Your task to perform on an android device: Clear the shopping cart on amazon. Add "macbook pro 13 inch" to the cart on amazon, then select checkout. Image 0: 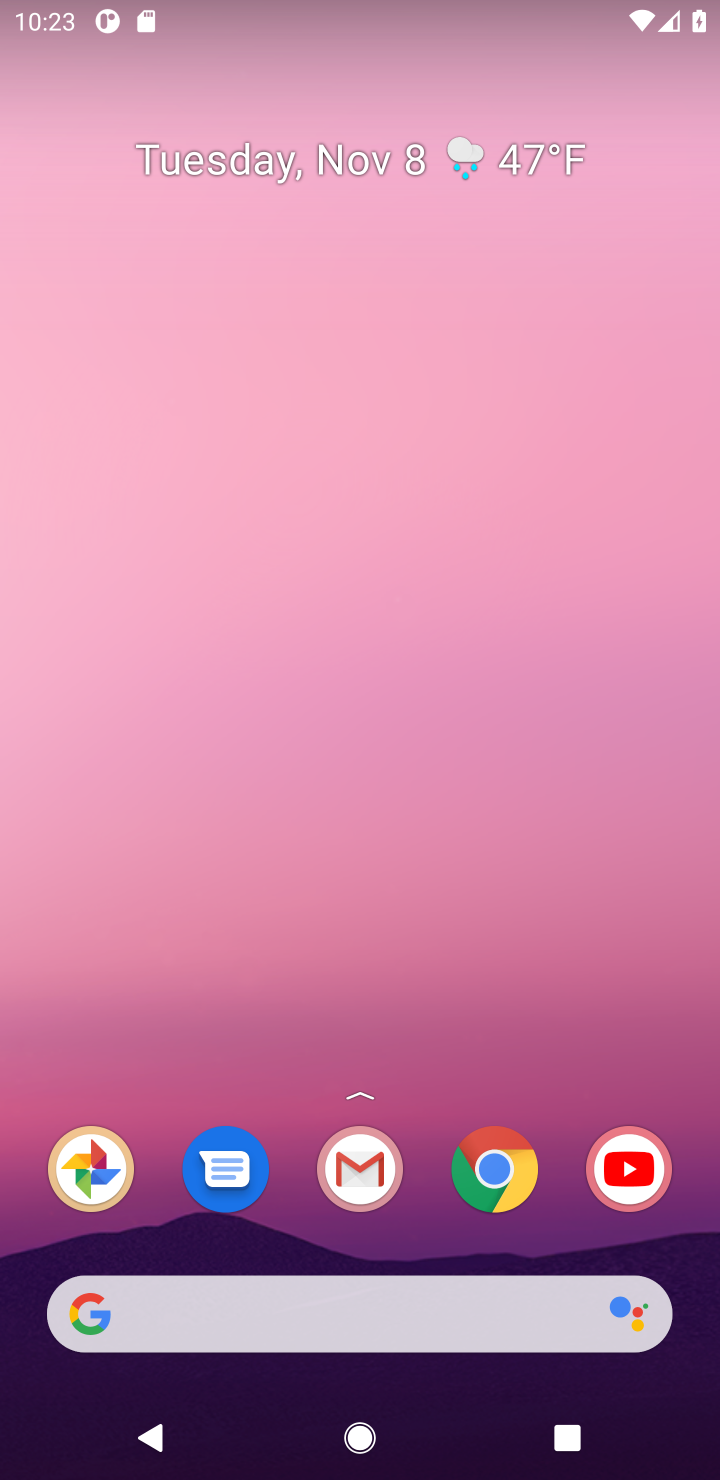
Step 0: click (523, 1178)
Your task to perform on an android device: Clear the shopping cart on amazon. Add "macbook pro 13 inch" to the cart on amazon, then select checkout. Image 1: 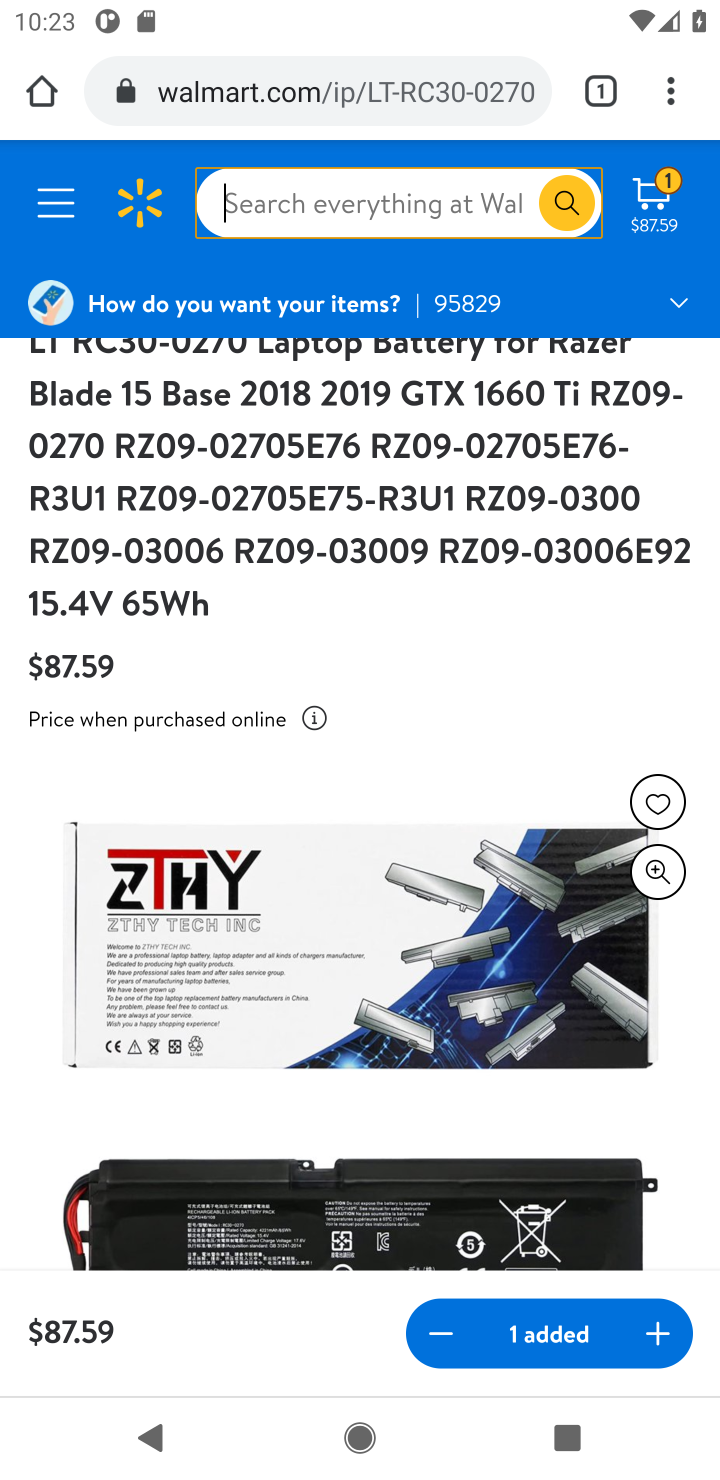
Step 1: click (528, 97)
Your task to perform on an android device: Clear the shopping cart on amazon. Add "macbook pro 13 inch" to the cart on amazon, then select checkout. Image 2: 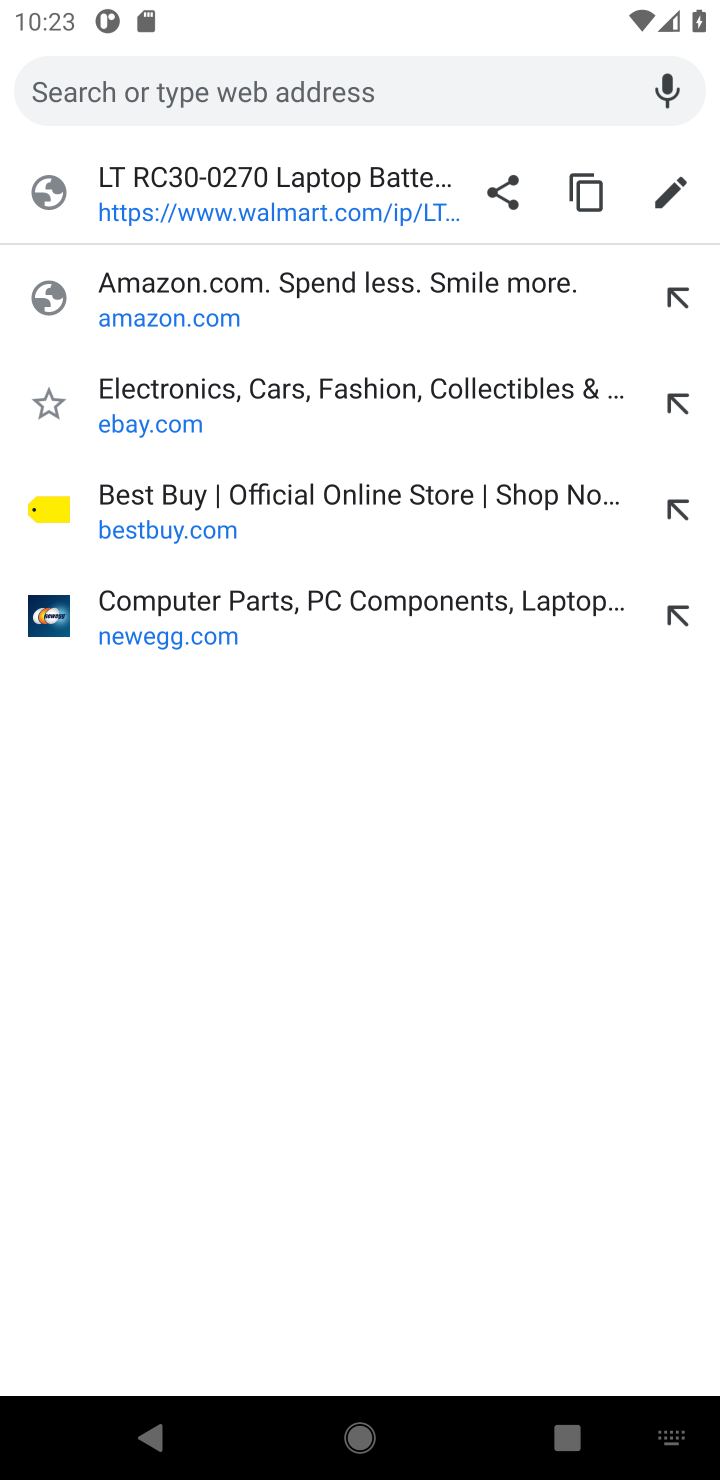
Step 2: press enter
Your task to perform on an android device: Clear the shopping cart on amazon. Add "macbook pro 13 inch" to the cart on amazon, then select checkout. Image 3: 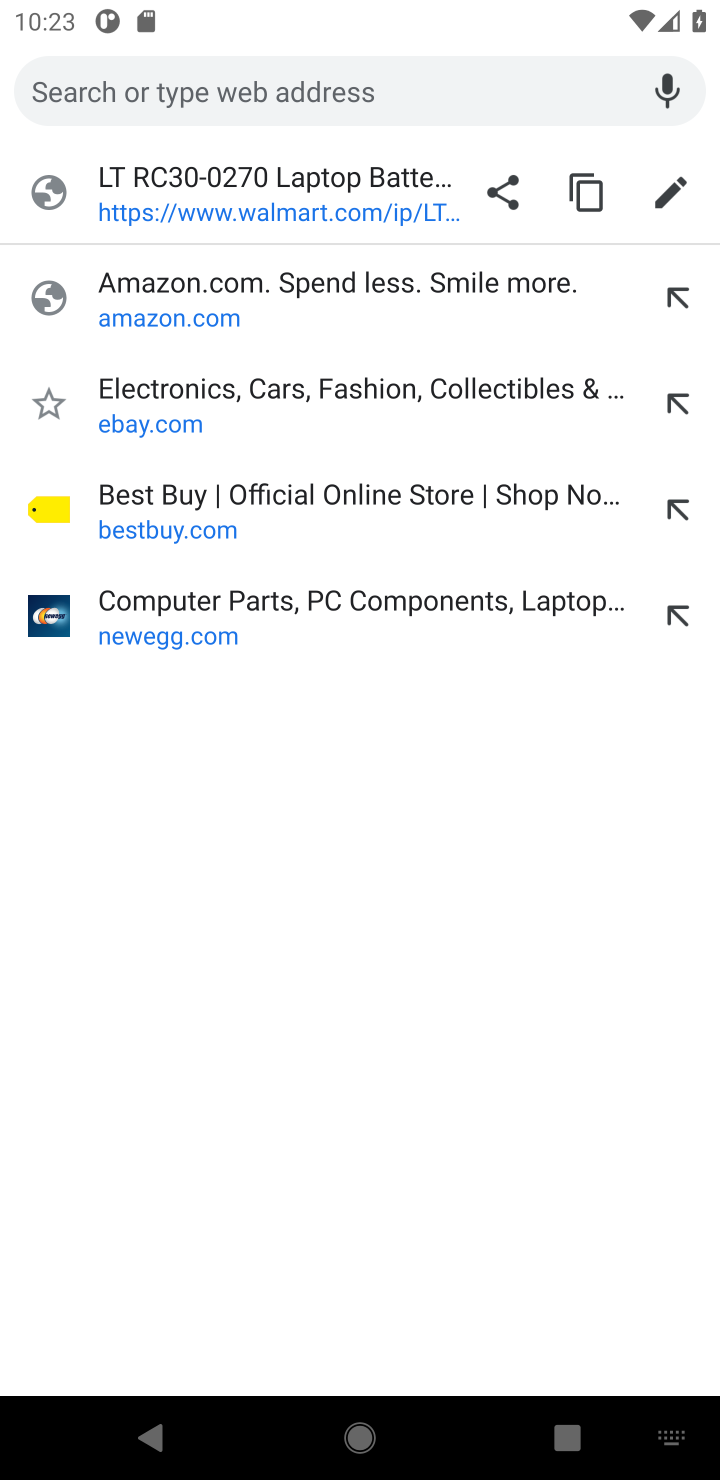
Step 3: type "amazon"
Your task to perform on an android device: Clear the shopping cart on amazon. Add "macbook pro 13 inch" to the cart on amazon, then select checkout. Image 4: 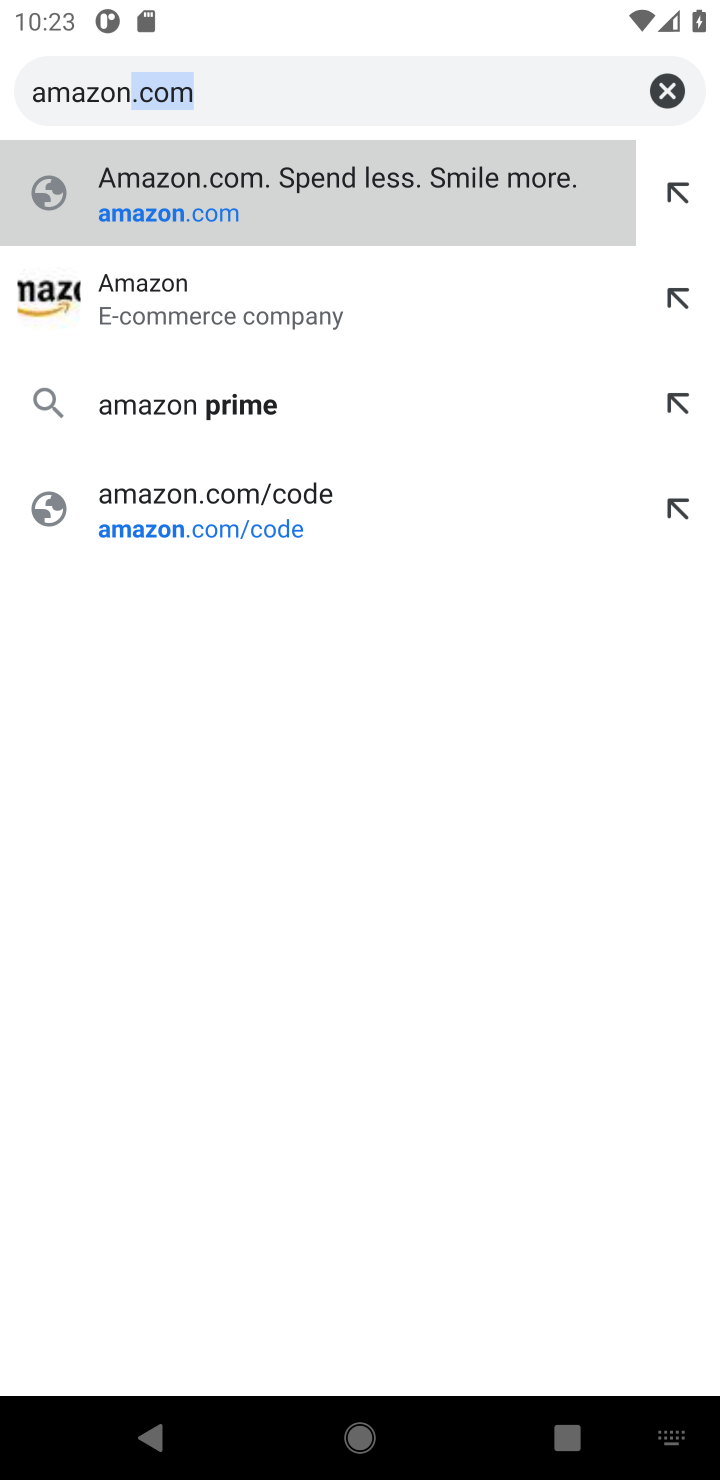
Step 4: click (539, 91)
Your task to perform on an android device: Clear the shopping cart on amazon. Add "macbook pro 13 inch" to the cart on amazon, then select checkout. Image 5: 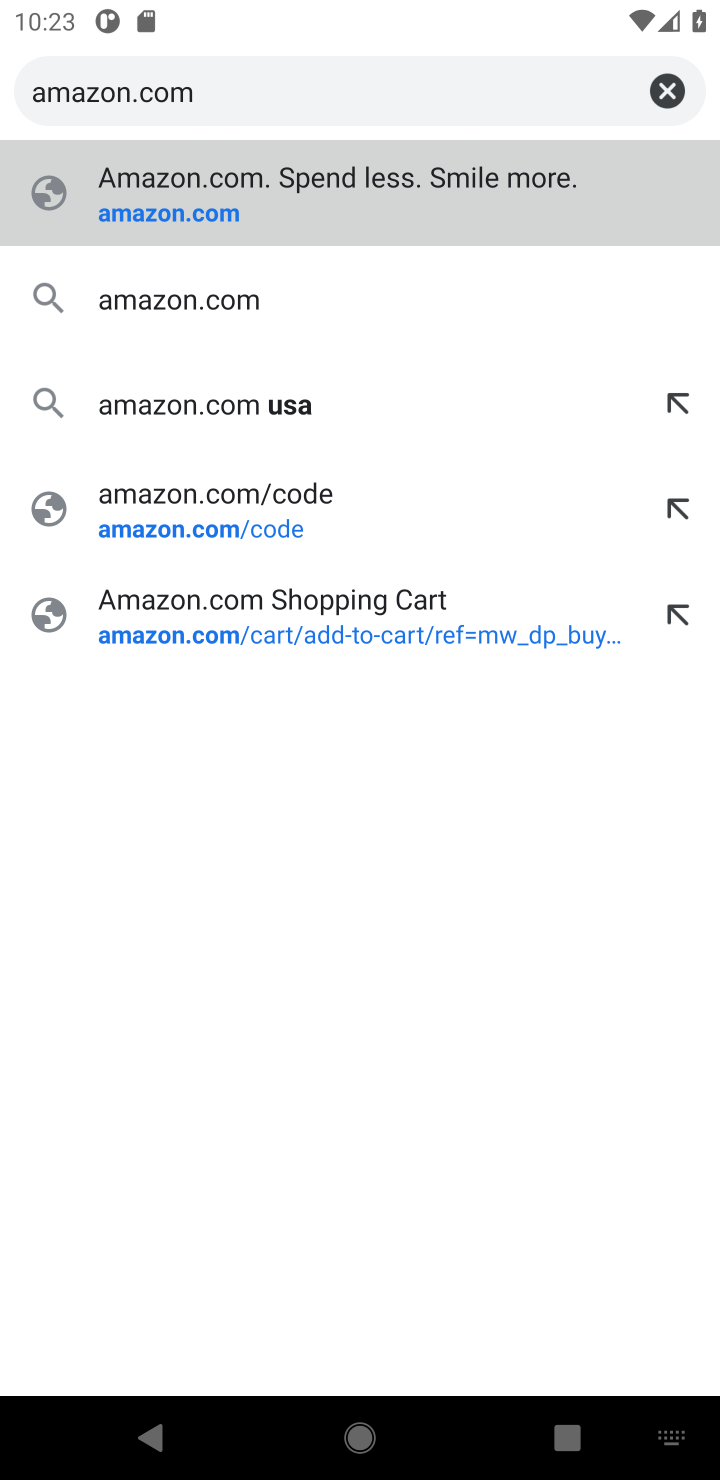
Step 5: click (219, 297)
Your task to perform on an android device: Clear the shopping cart on amazon. Add "macbook pro 13 inch" to the cart on amazon, then select checkout. Image 6: 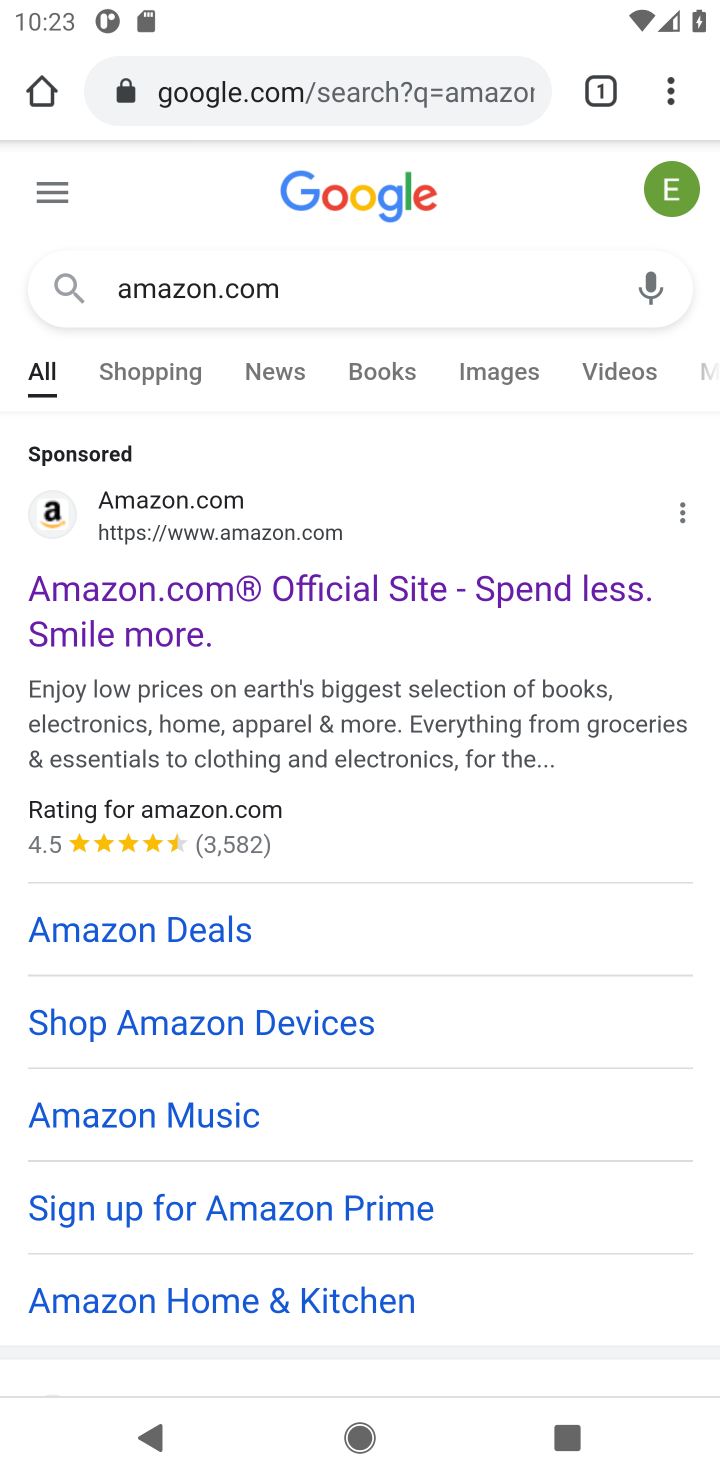
Step 6: click (298, 537)
Your task to perform on an android device: Clear the shopping cart on amazon. Add "macbook pro 13 inch" to the cart on amazon, then select checkout. Image 7: 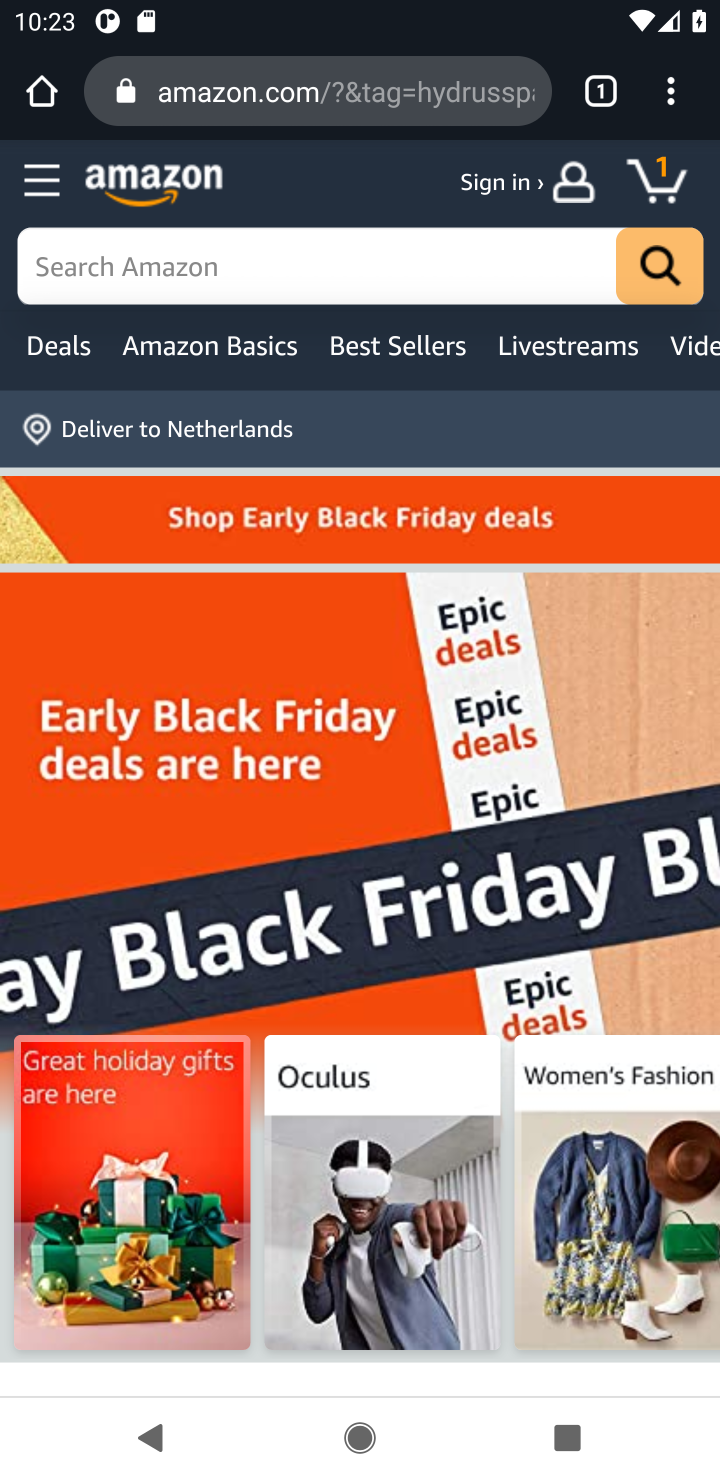
Step 7: click (662, 187)
Your task to perform on an android device: Clear the shopping cart on amazon. Add "macbook pro 13 inch" to the cart on amazon, then select checkout. Image 8: 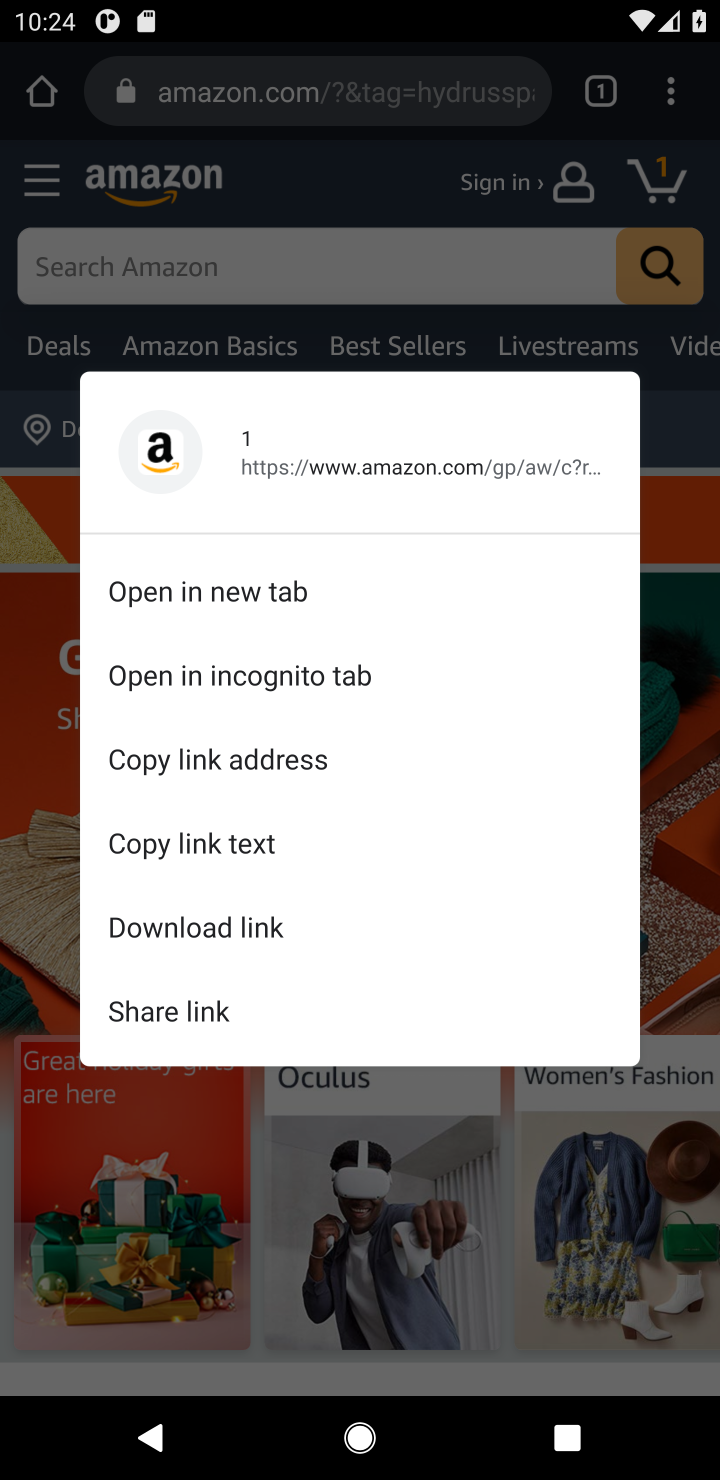
Step 8: click (662, 187)
Your task to perform on an android device: Clear the shopping cart on amazon. Add "macbook pro 13 inch" to the cart on amazon, then select checkout. Image 9: 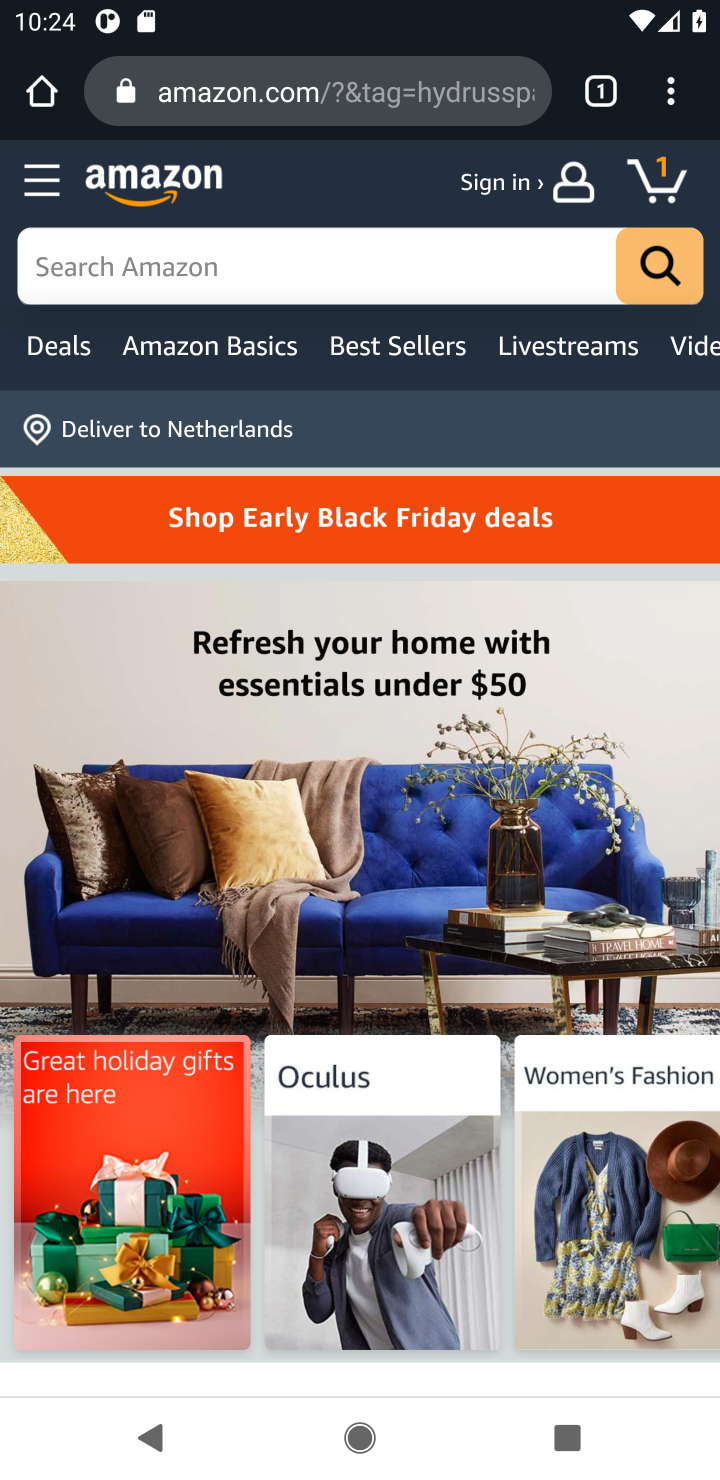
Step 9: click (662, 187)
Your task to perform on an android device: Clear the shopping cart on amazon. Add "macbook pro 13 inch" to the cart on amazon, then select checkout. Image 10: 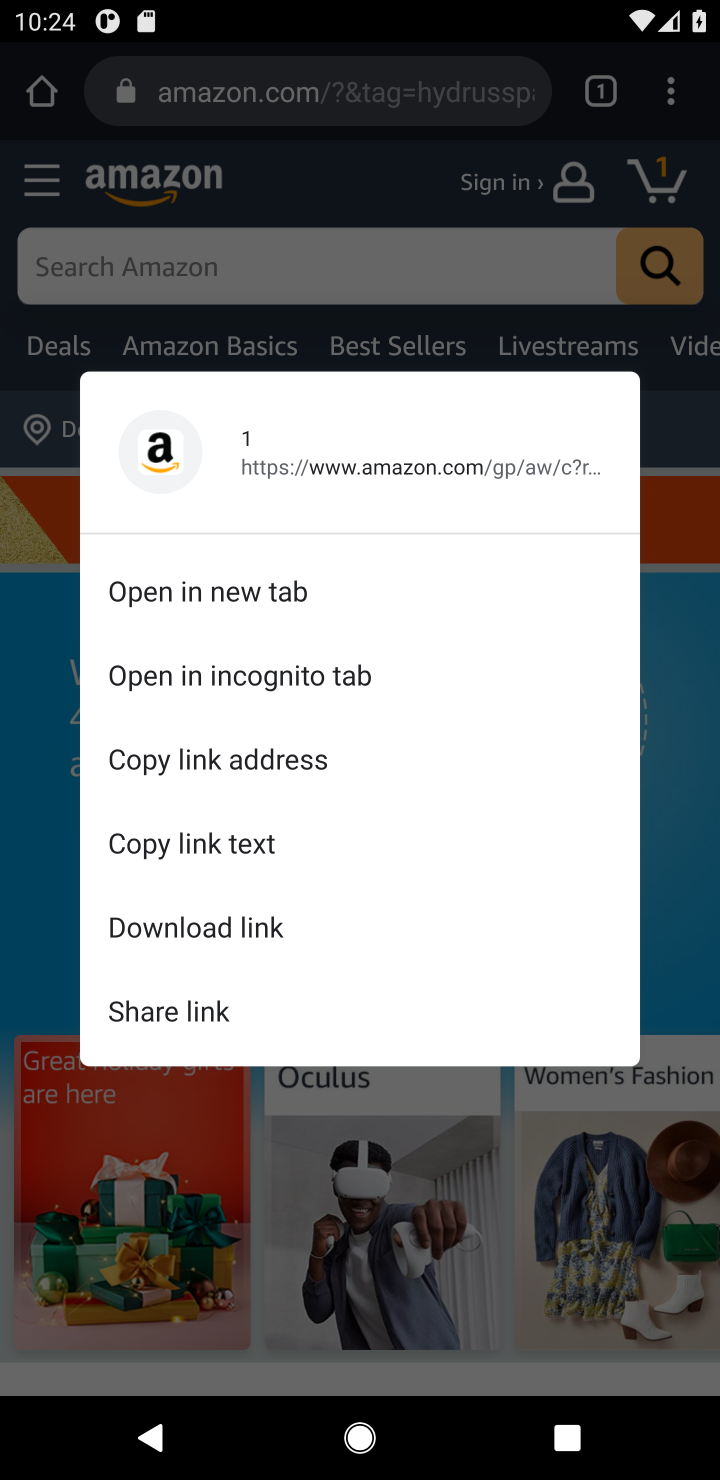
Step 10: click (662, 187)
Your task to perform on an android device: Clear the shopping cart on amazon. Add "macbook pro 13 inch" to the cart on amazon, then select checkout. Image 11: 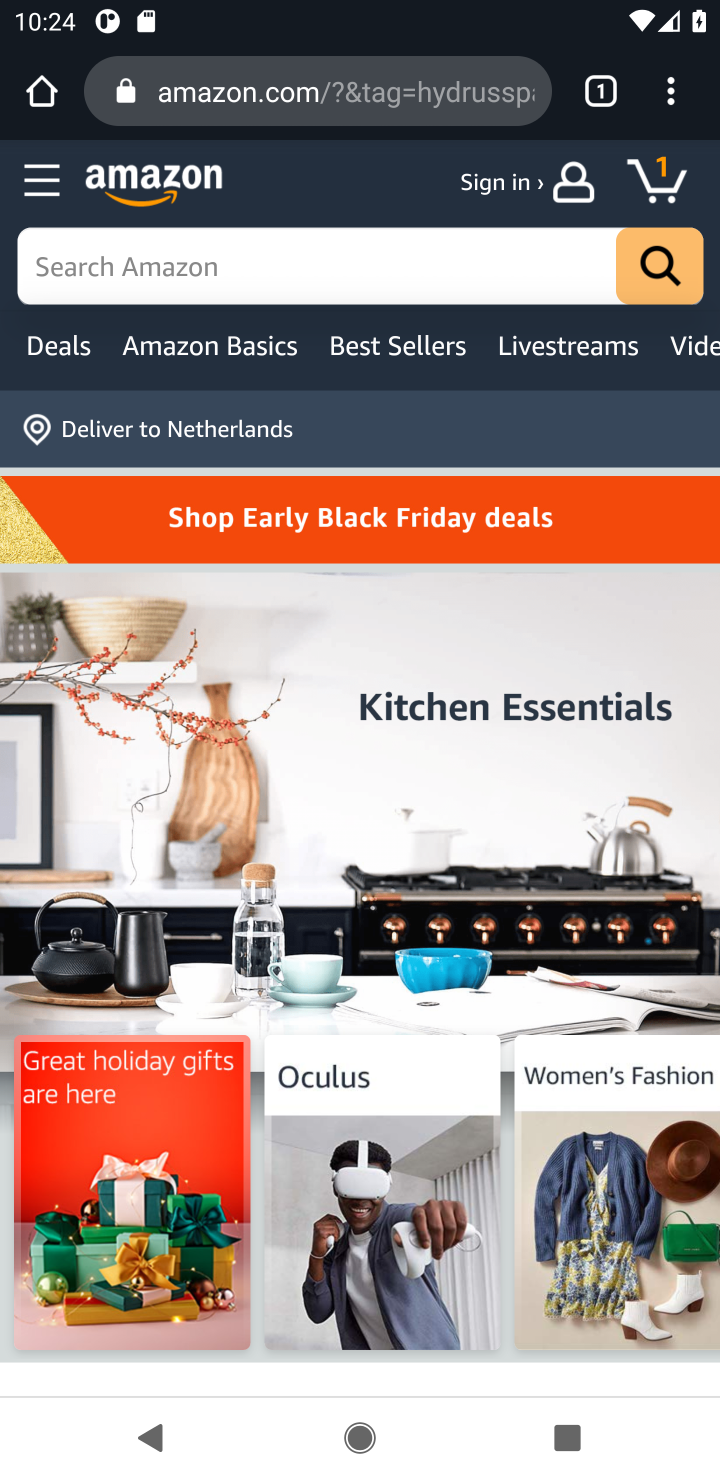
Step 11: click (662, 187)
Your task to perform on an android device: Clear the shopping cart on amazon. Add "macbook pro 13 inch" to the cart on amazon, then select checkout. Image 12: 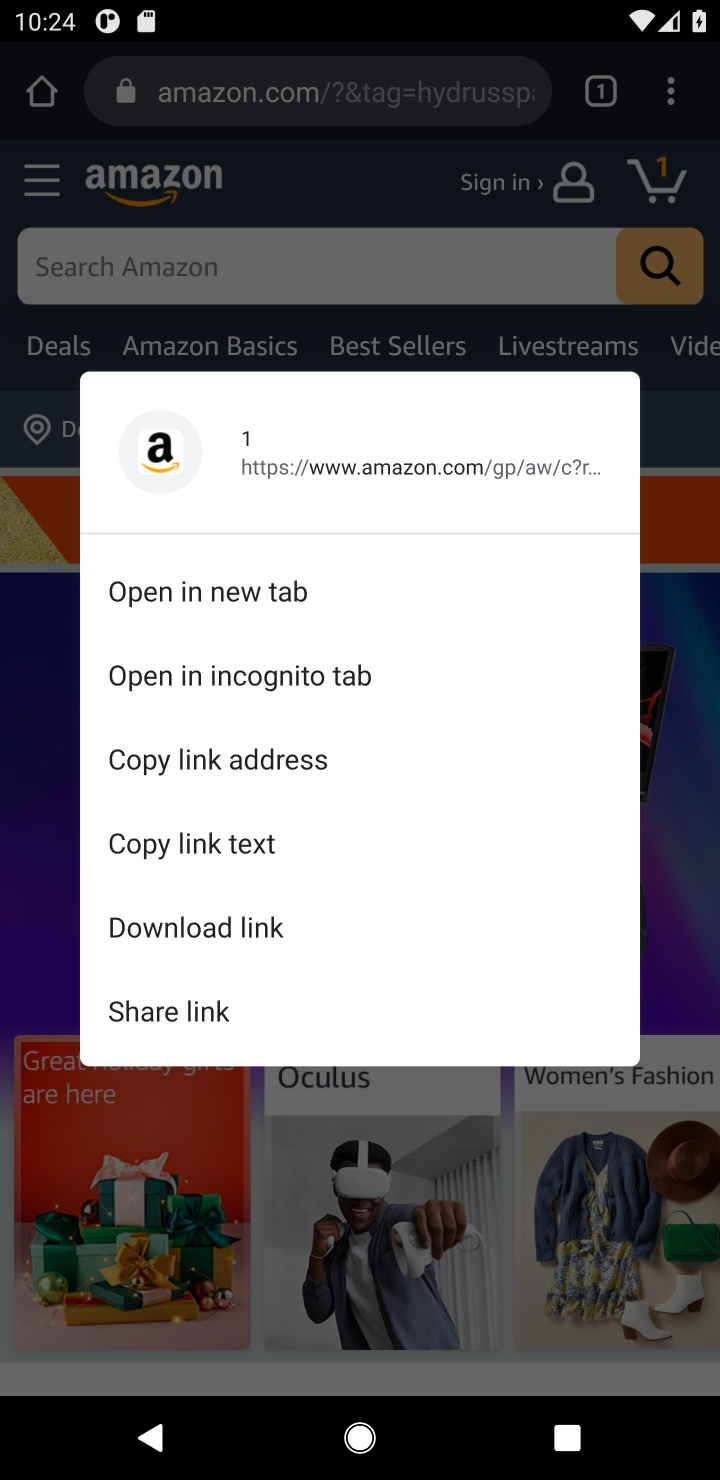
Step 12: click (662, 187)
Your task to perform on an android device: Clear the shopping cart on amazon. Add "macbook pro 13 inch" to the cart on amazon, then select checkout. Image 13: 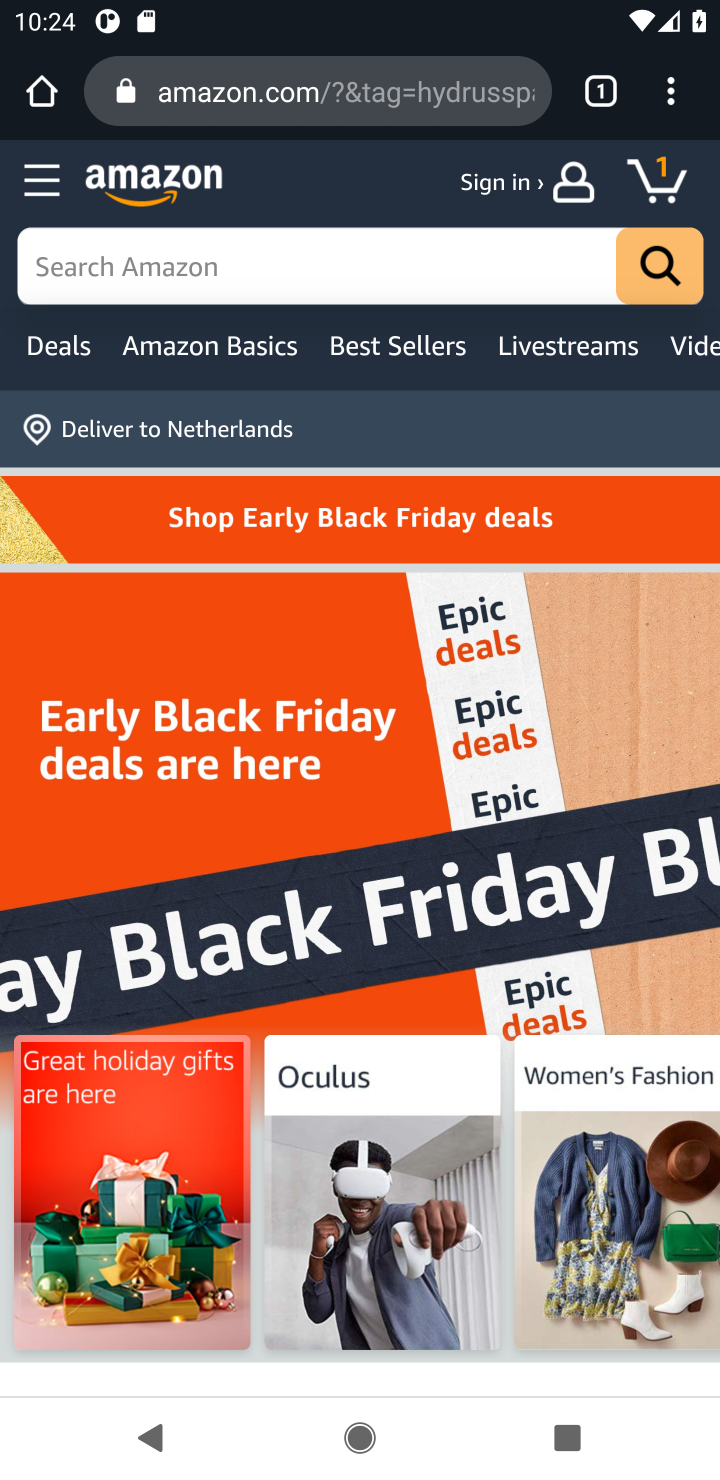
Step 13: click (647, 165)
Your task to perform on an android device: Clear the shopping cart on amazon. Add "macbook pro 13 inch" to the cart on amazon, then select checkout. Image 14: 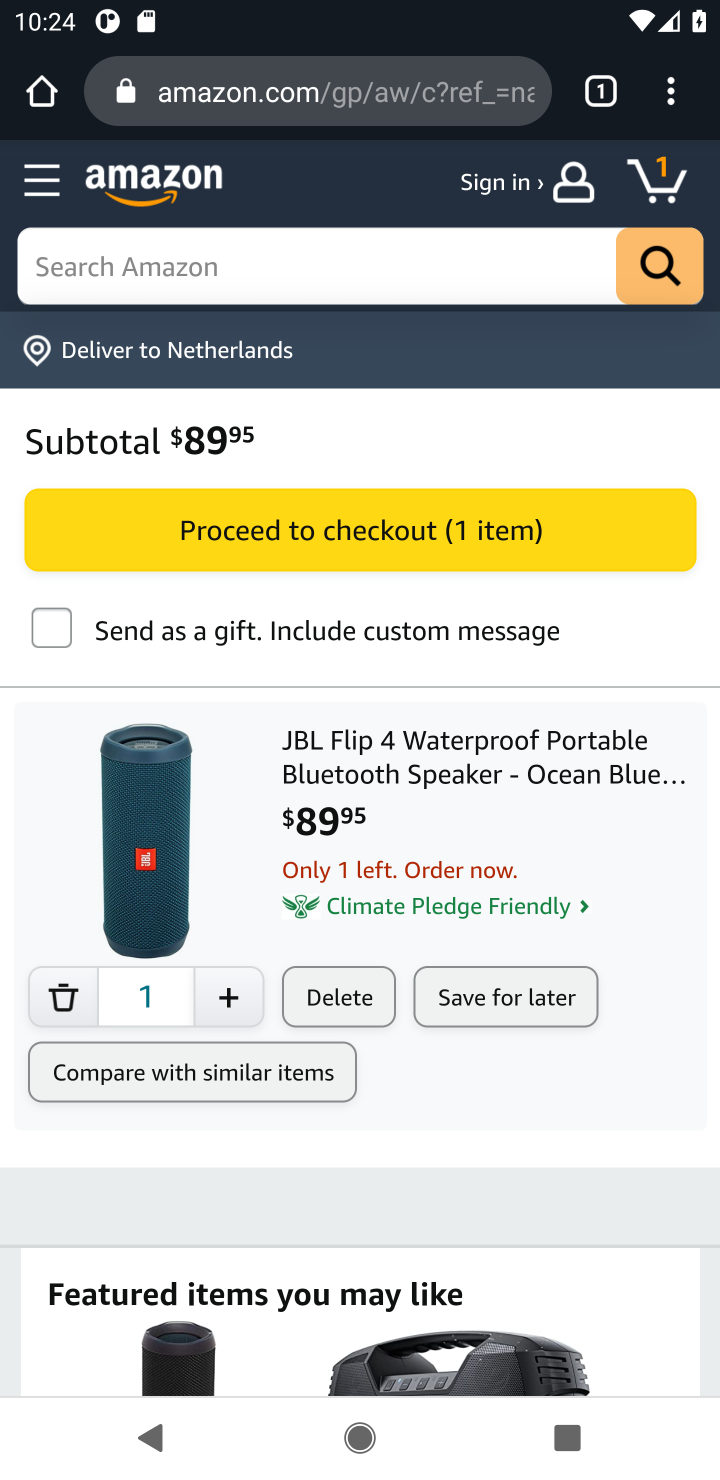
Step 14: click (332, 985)
Your task to perform on an android device: Clear the shopping cart on amazon. Add "macbook pro 13 inch" to the cart on amazon, then select checkout. Image 15: 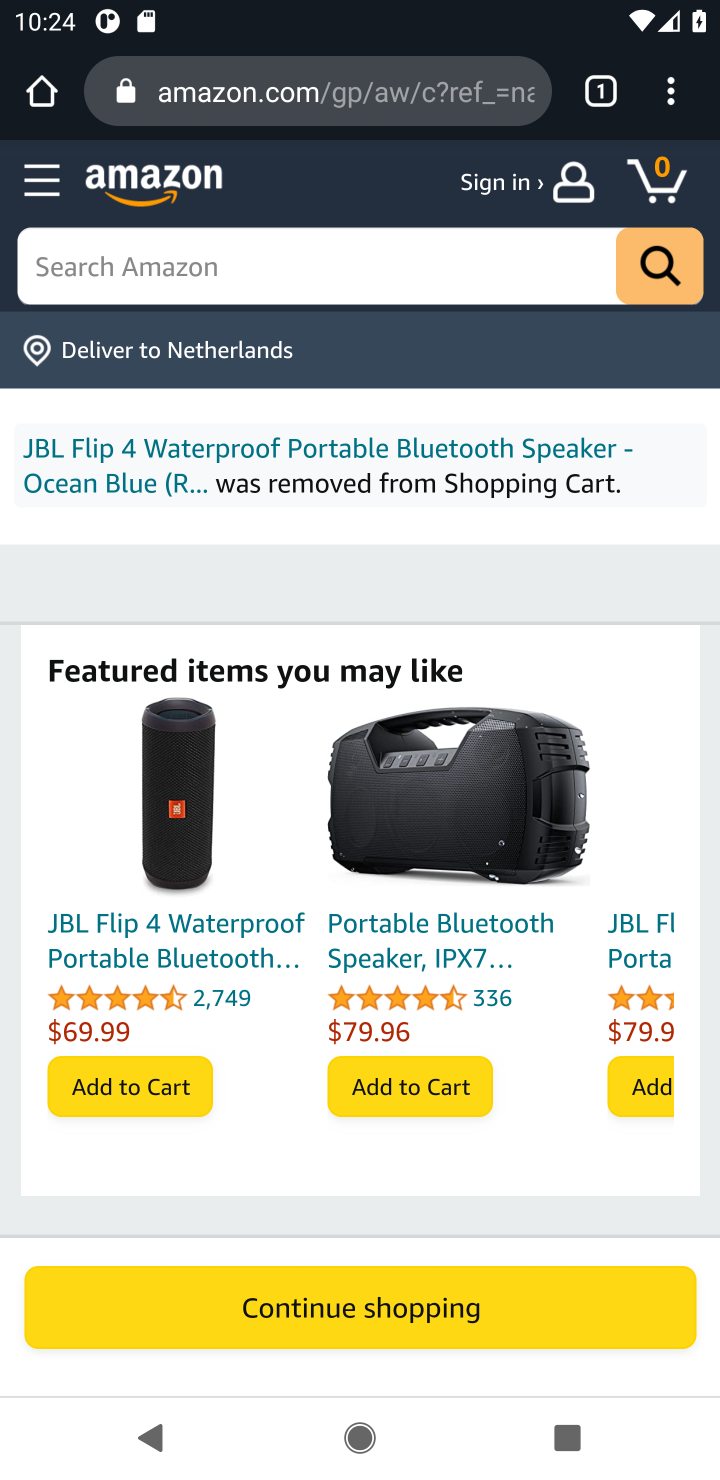
Step 15: click (510, 261)
Your task to perform on an android device: Clear the shopping cart on amazon. Add "macbook pro 13 inch" to the cart on amazon, then select checkout. Image 16: 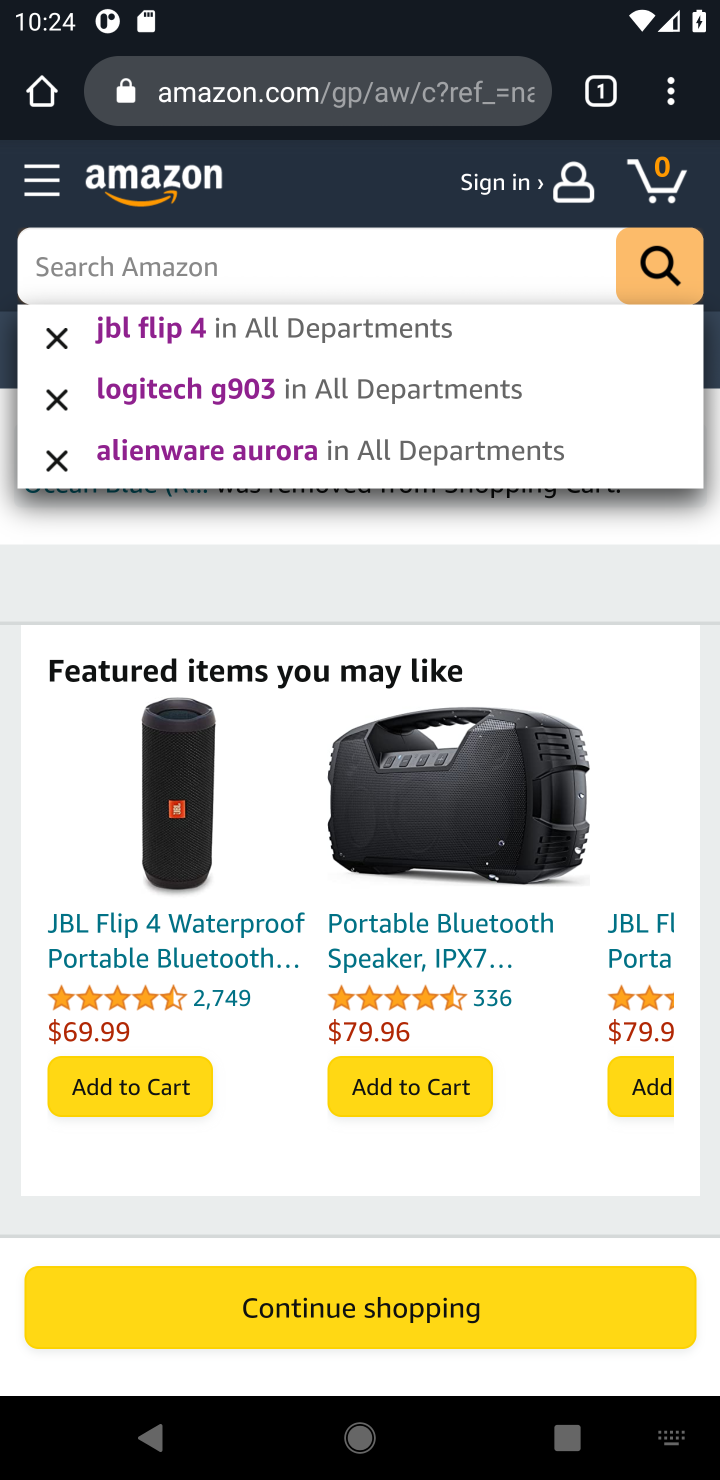
Step 16: type "macbook pro 13 inch"
Your task to perform on an android device: Clear the shopping cart on amazon. Add "macbook pro 13 inch" to the cart on amazon, then select checkout. Image 17: 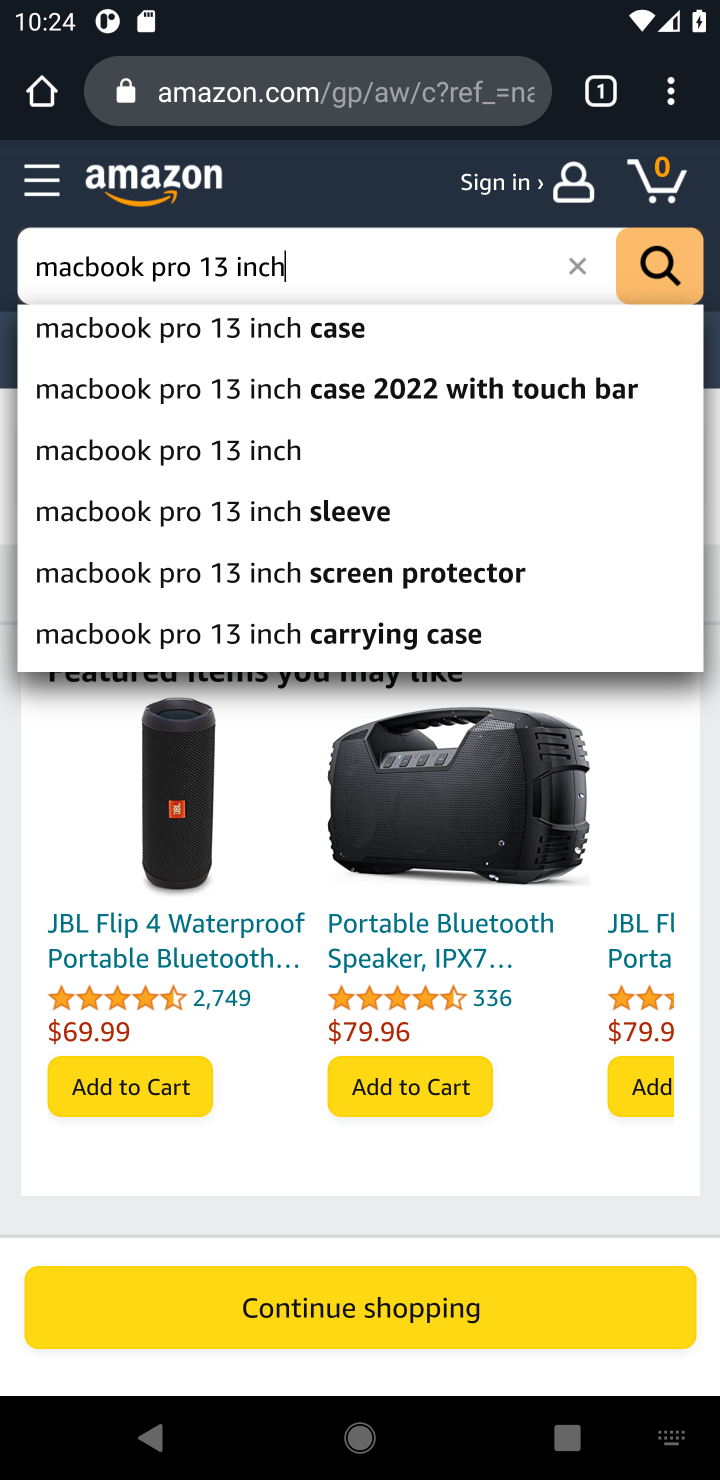
Step 17: click (291, 447)
Your task to perform on an android device: Clear the shopping cart on amazon. Add "macbook pro 13 inch" to the cart on amazon, then select checkout. Image 18: 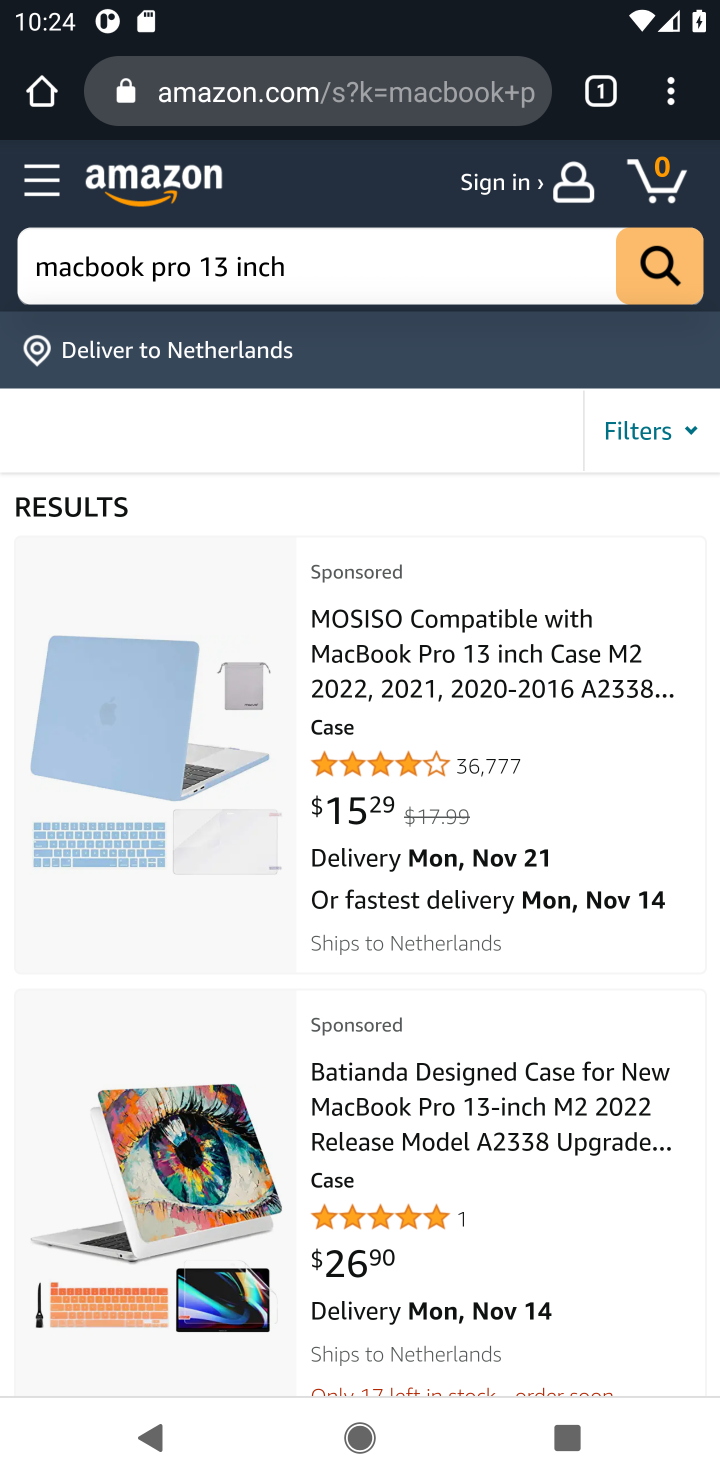
Step 18: click (131, 725)
Your task to perform on an android device: Clear the shopping cart on amazon. Add "macbook pro 13 inch" to the cart on amazon, then select checkout. Image 19: 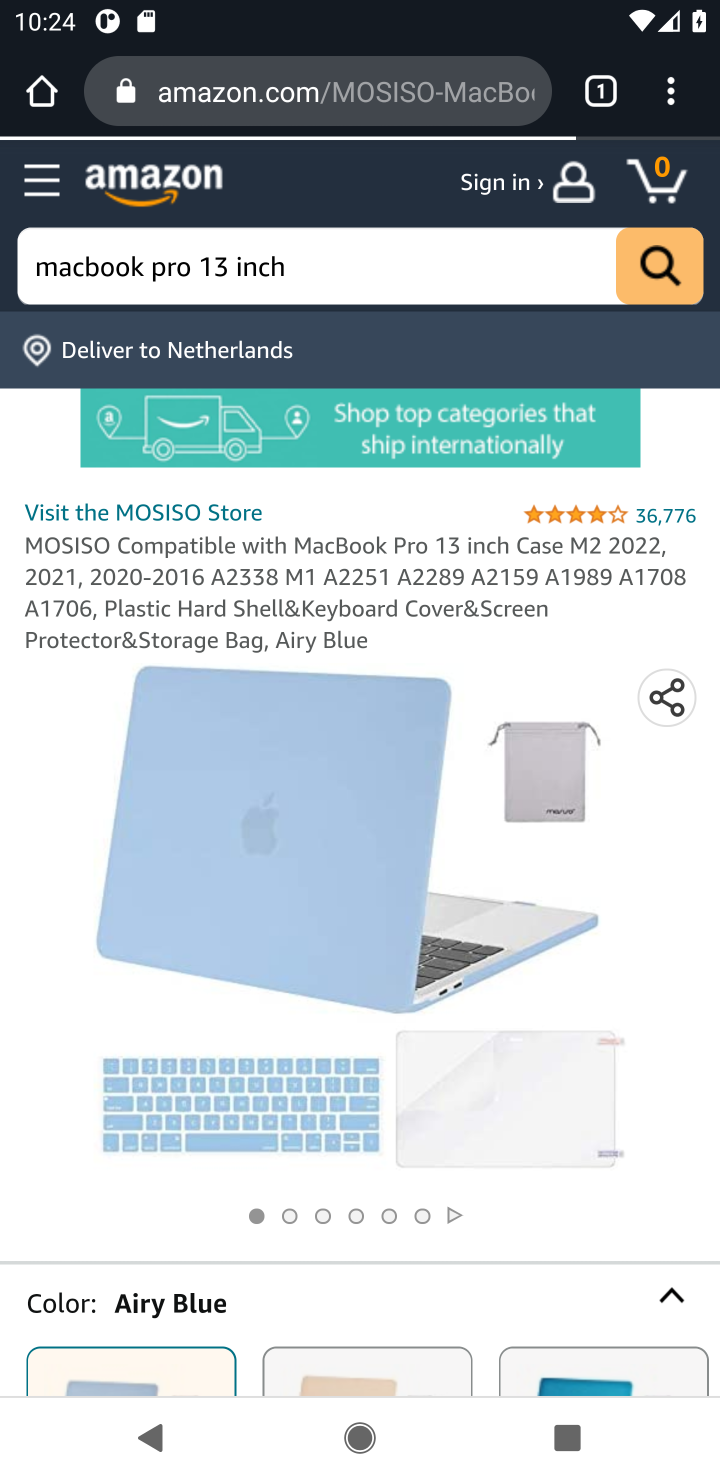
Step 19: drag from (615, 1017) to (650, 250)
Your task to perform on an android device: Clear the shopping cart on amazon. Add "macbook pro 13 inch" to the cart on amazon, then select checkout. Image 20: 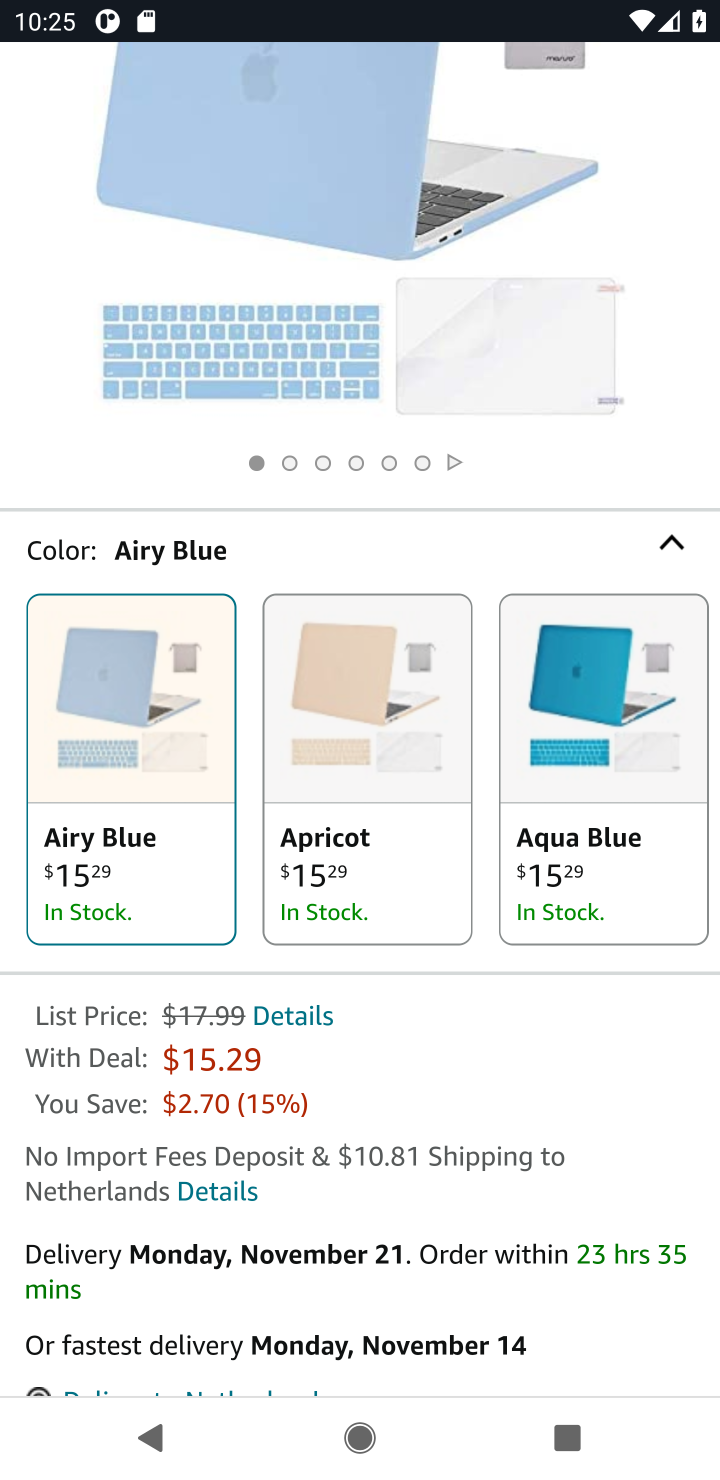
Step 20: drag from (584, 1173) to (648, 324)
Your task to perform on an android device: Clear the shopping cart on amazon. Add "macbook pro 13 inch" to the cart on amazon, then select checkout. Image 21: 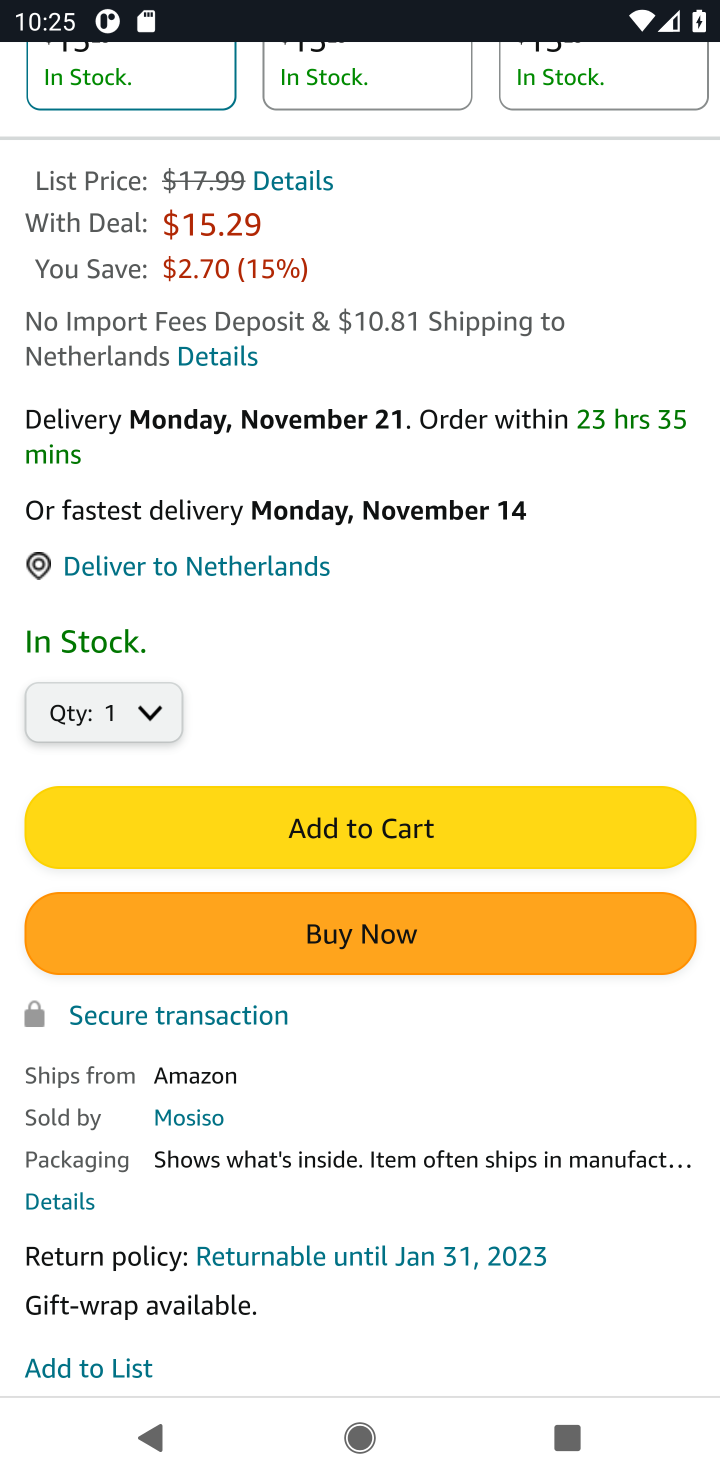
Step 21: click (347, 822)
Your task to perform on an android device: Clear the shopping cart on amazon. Add "macbook pro 13 inch" to the cart on amazon, then select checkout. Image 22: 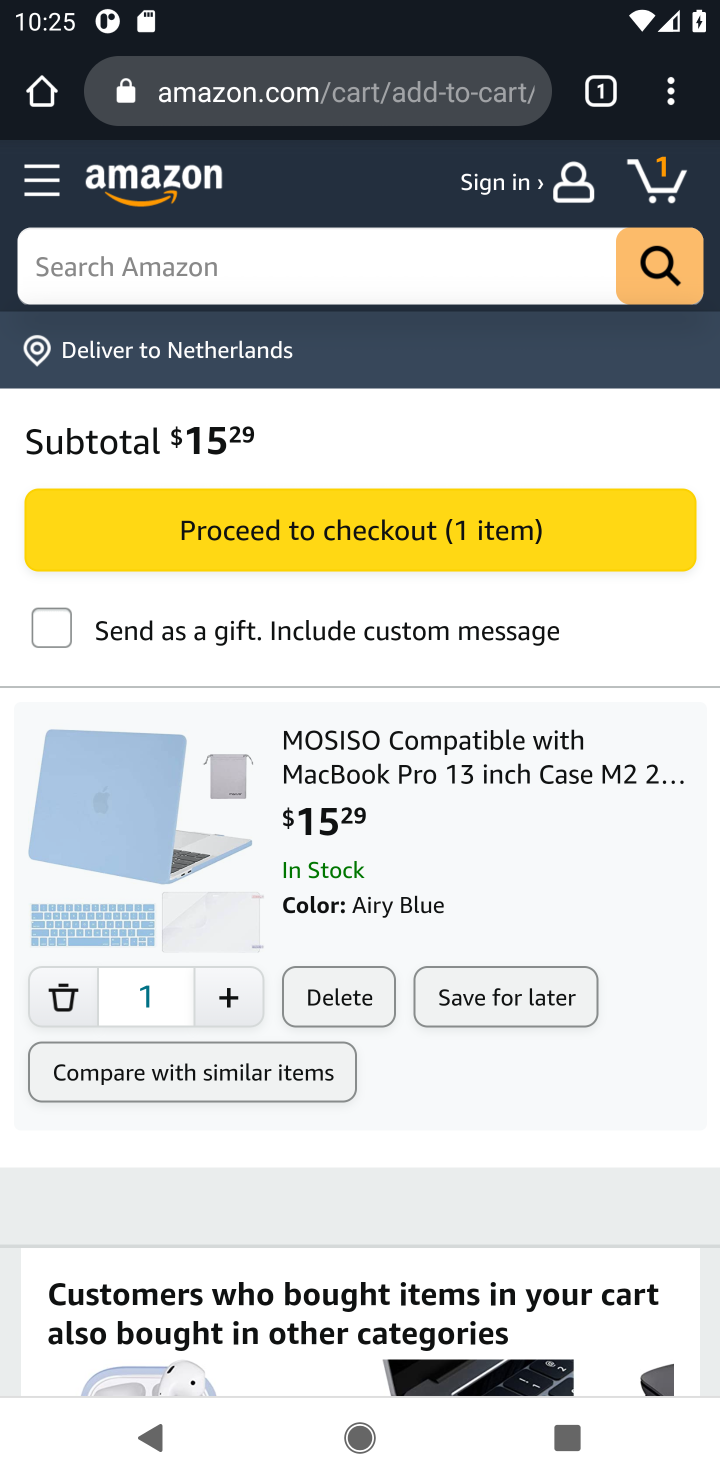
Step 22: click (348, 517)
Your task to perform on an android device: Clear the shopping cart on amazon. Add "macbook pro 13 inch" to the cart on amazon, then select checkout. Image 23: 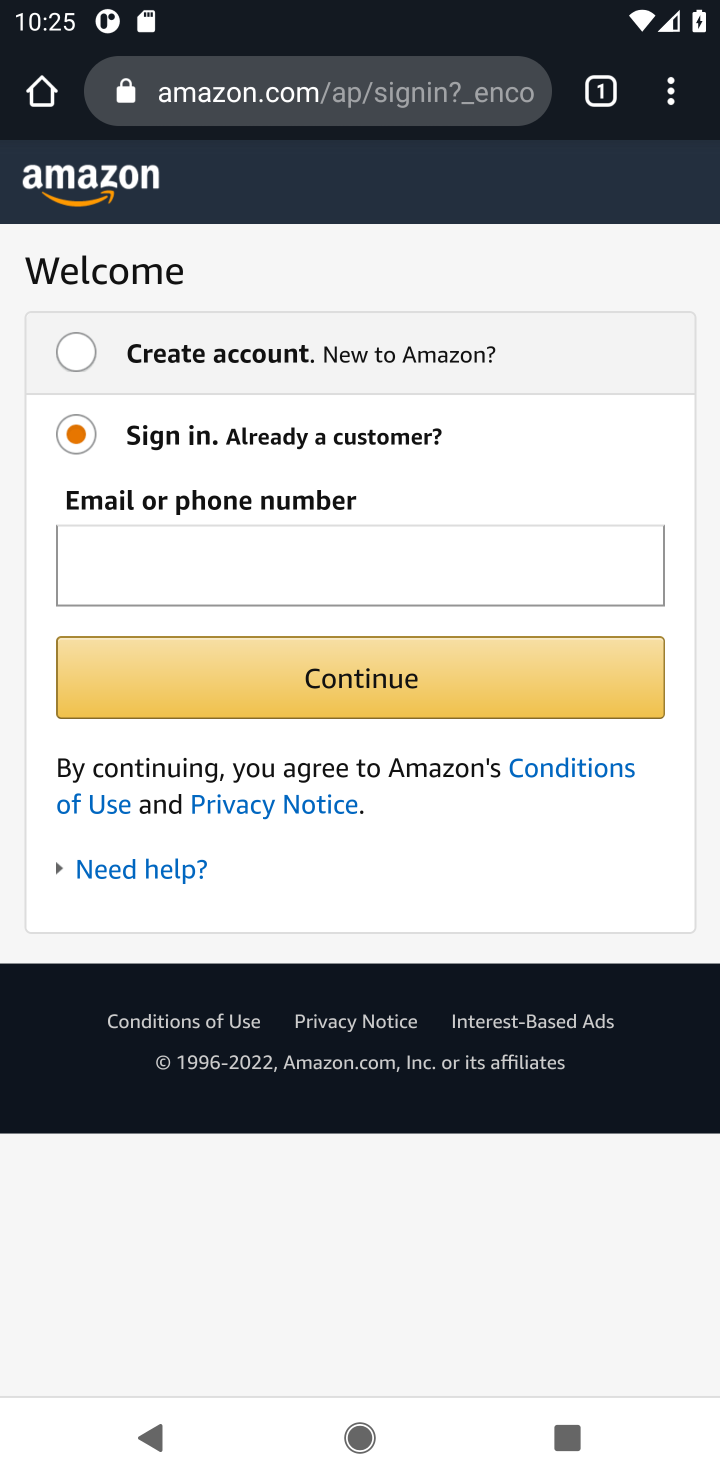
Step 23: task complete